Your task to perform on an android device: turn on notifications settings in the gmail app Image 0: 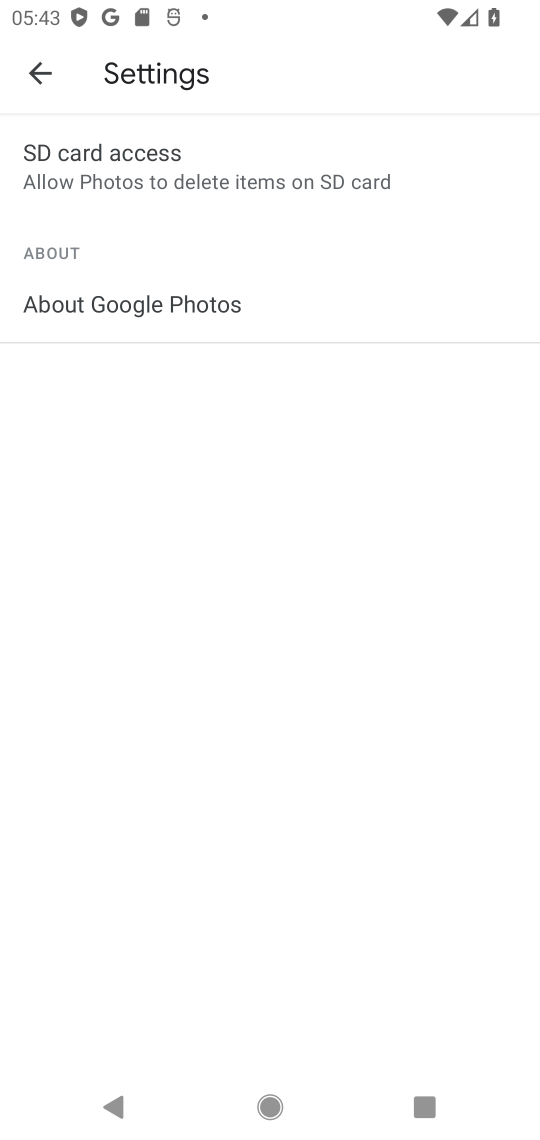
Step 0: press home button
Your task to perform on an android device: turn on notifications settings in the gmail app Image 1: 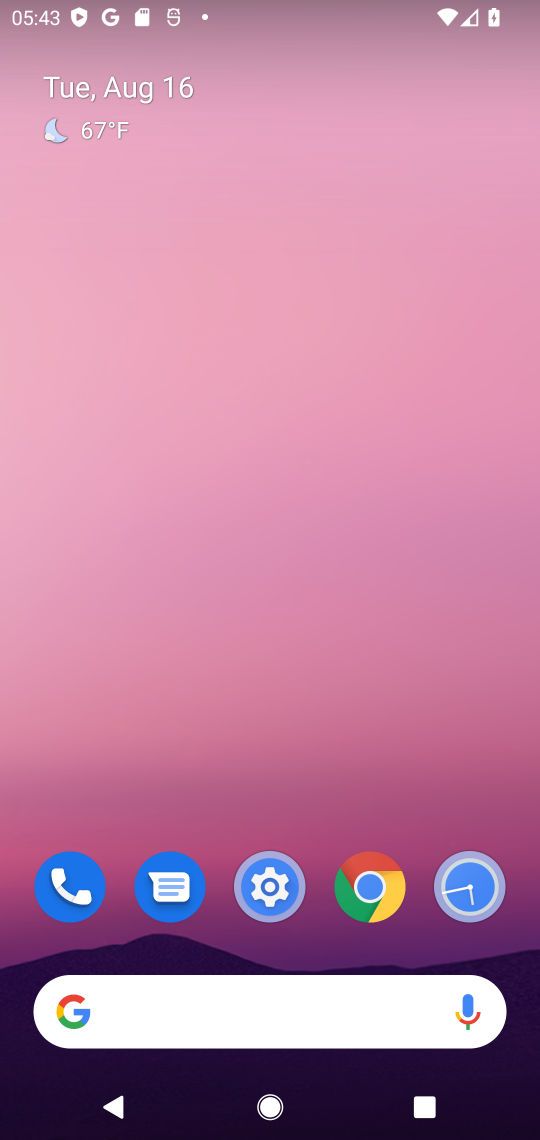
Step 1: press home button
Your task to perform on an android device: turn on notifications settings in the gmail app Image 2: 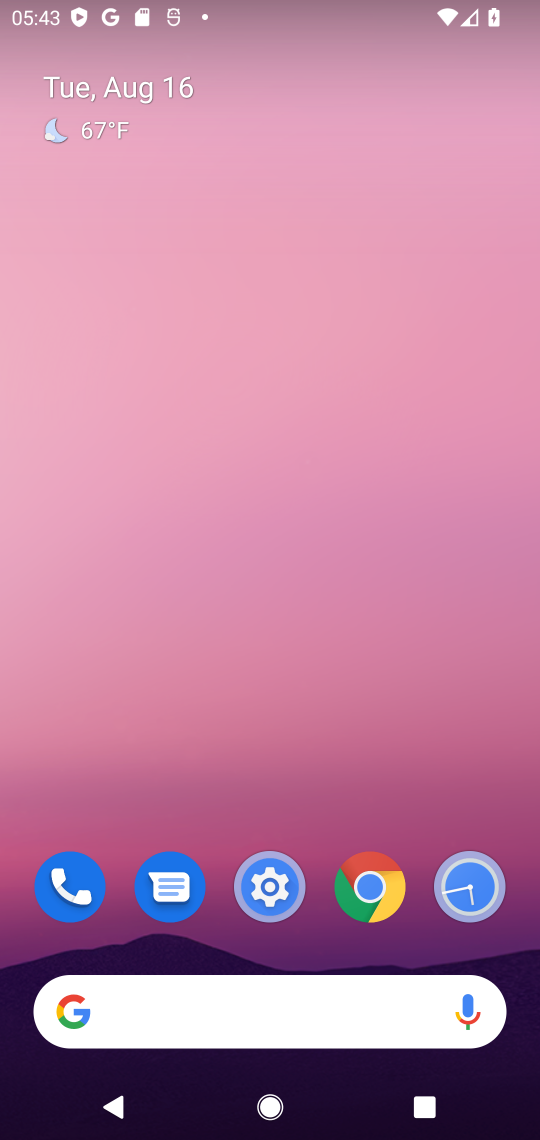
Step 2: drag from (318, 774) to (345, 13)
Your task to perform on an android device: turn on notifications settings in the gmail app Image 3: 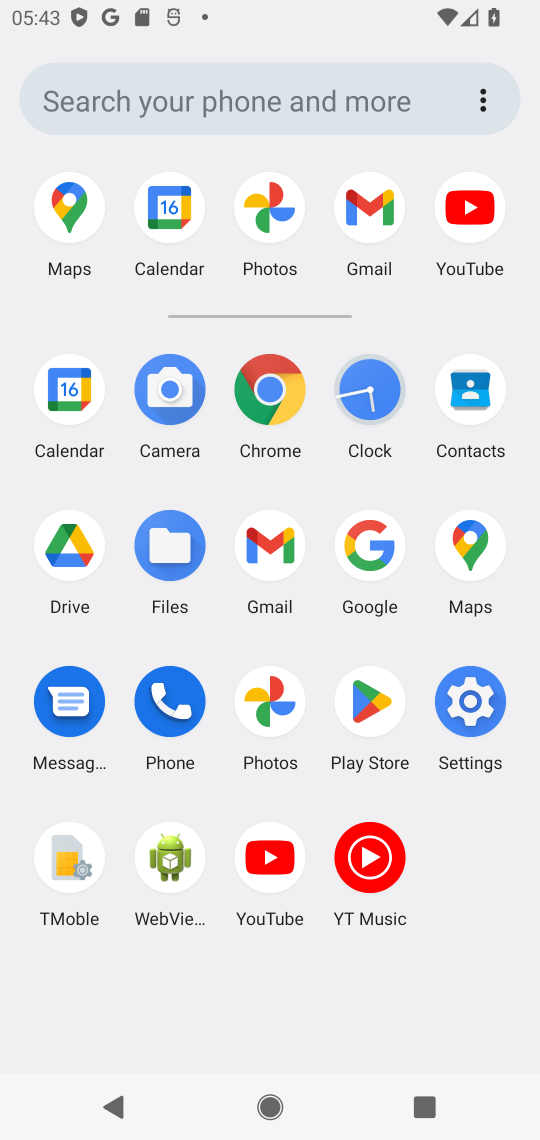
Step 3: click (259, 534)
Your task to perform on an android device: turn on notifications settings in the gmail app Image 4: 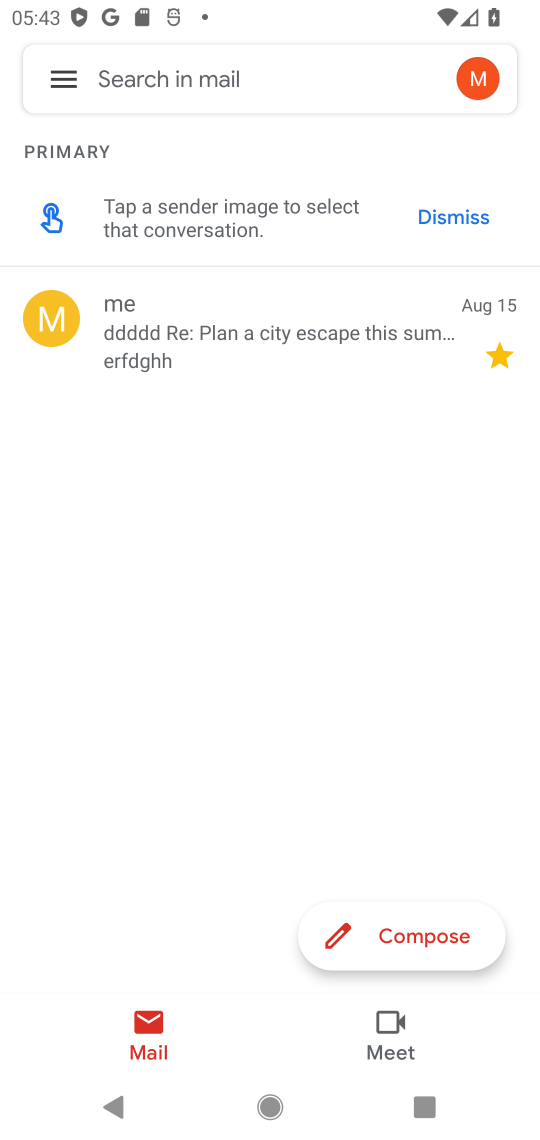
Step 4: click (60, 60)
Your task to perform on an android device: turn on notifications settings in the gmail app Image 5: 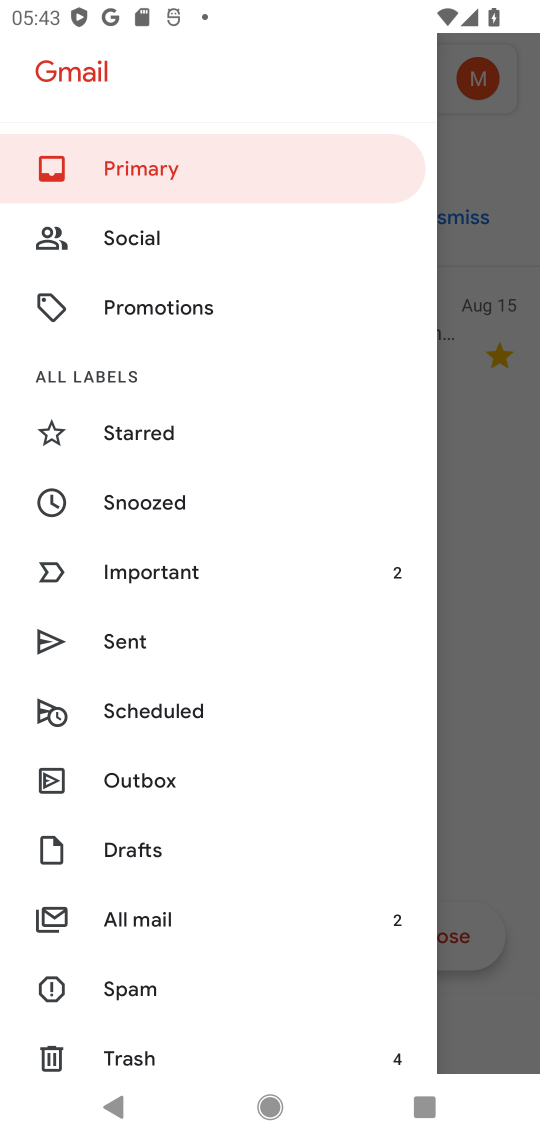
Step 5: drag from (150, 980) to (207, 349)
Your task to perform on an android device: turn on notifications settings in the gmail app Image 6: 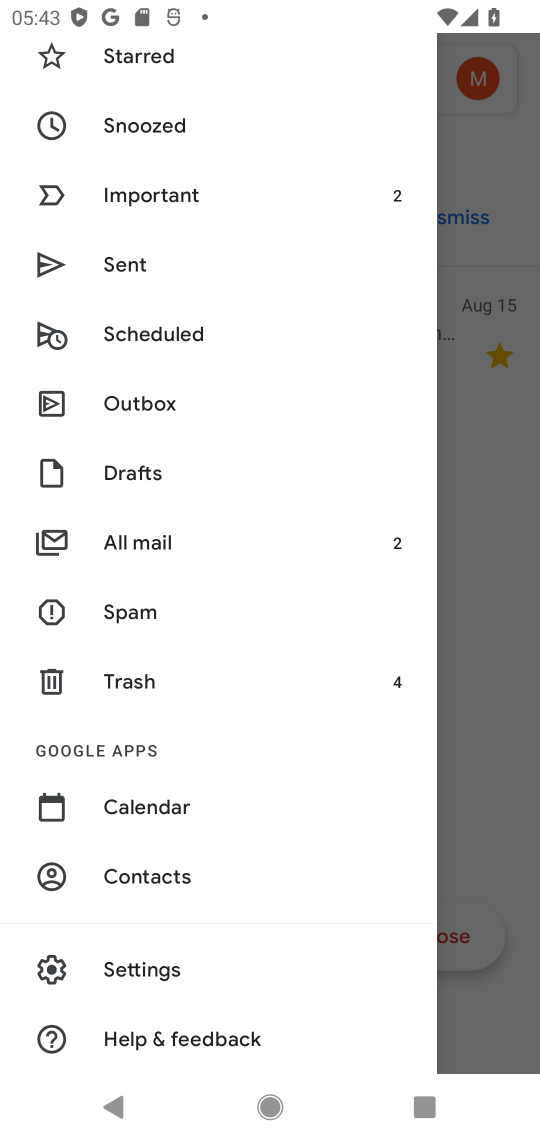
Step 6: click (131, 981)
Your task to perform on an android device: turn on notifications settings in the gmail app Image 7: 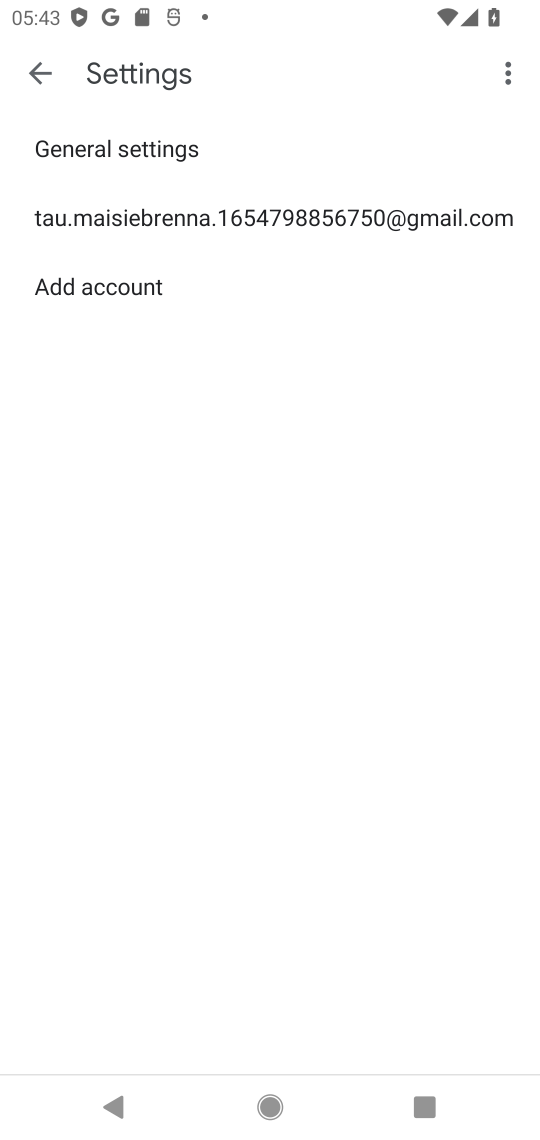
Step 7: click (313, 211)
Your task to perform on an android device: turn on notifications settings in the gmail app Image 8: 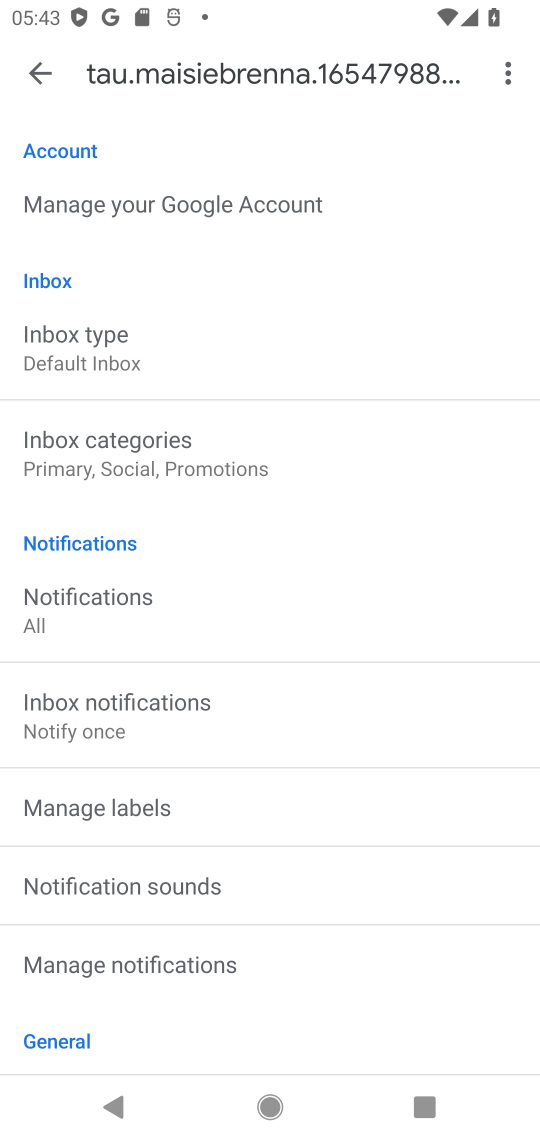
Step 8: click (151, 974)
Your task to perform on an android device: turn on notifications settings in the gmail app Image 9: 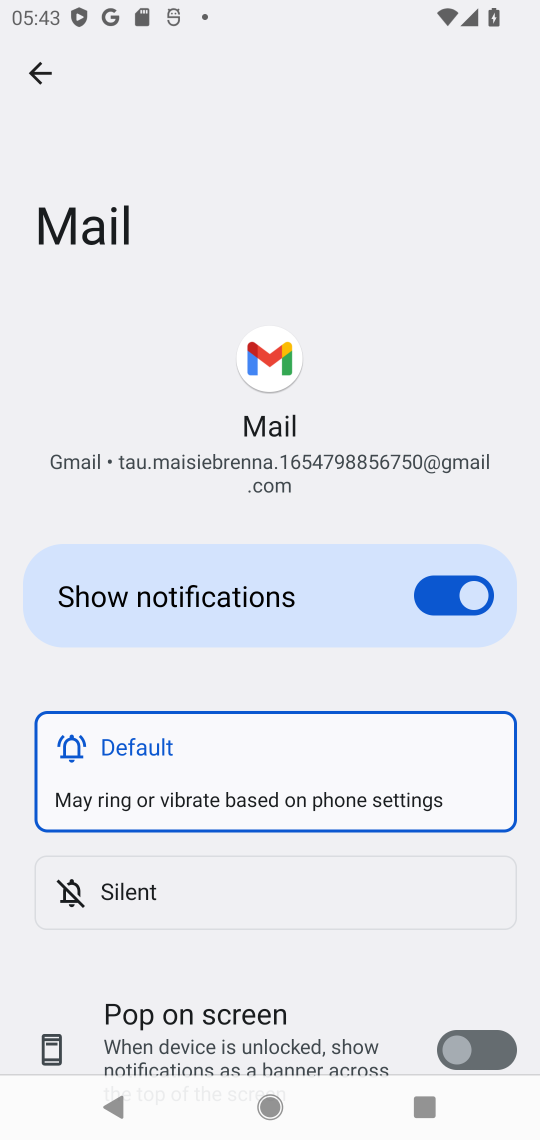
Step 9: task complete